Your task to perform on an android device: What's the weather today? Image 0: 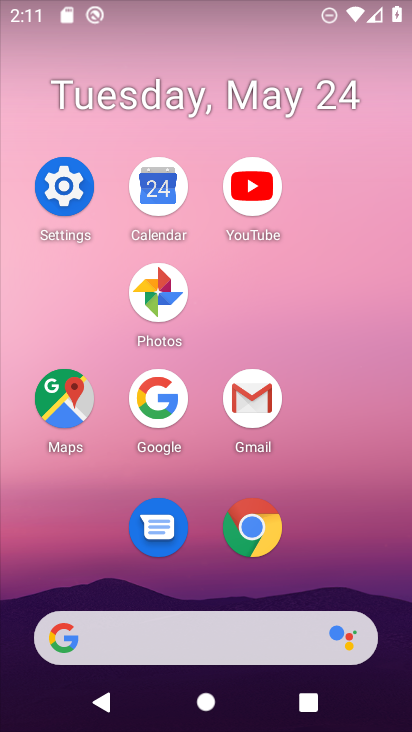
Step 0: click (148, 401)
Your task to perform on an android device: What's the weather today? Image 1: 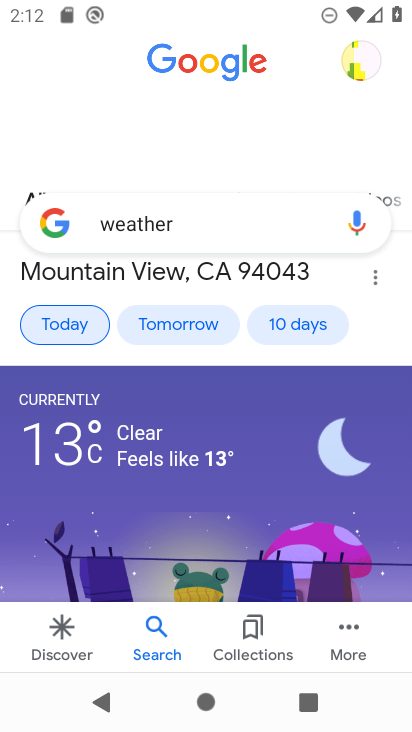
Step 1: task complete